Your task to perform on an android device: turn off smart reply in the gmail app Image 0: 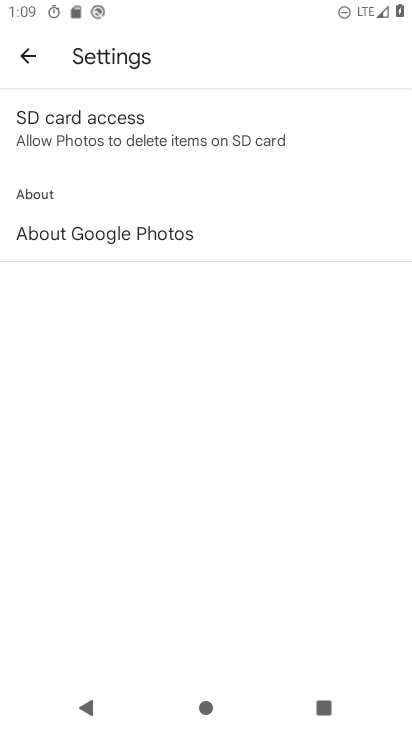
Step 0: press home button
Your task to perform on an android device: turn off smart reply in the gmail app Image 1: 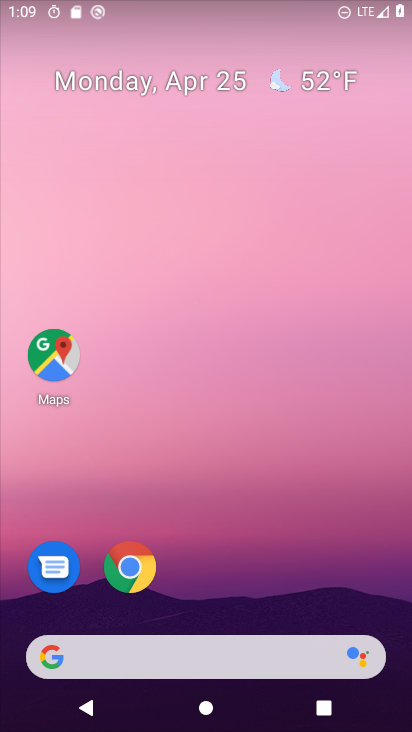
Step 1: drag from (237, 501) to (236, 31)
Your task to perform on an android device: turn off smart reply in the gmail app Image 2: 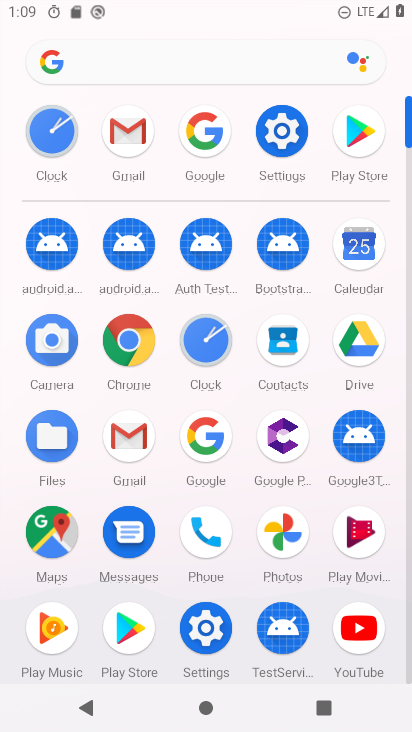
Step 2: click (134, 139)
Your task to perform on an android device: turn off smart reply in the gmail app Image 3: 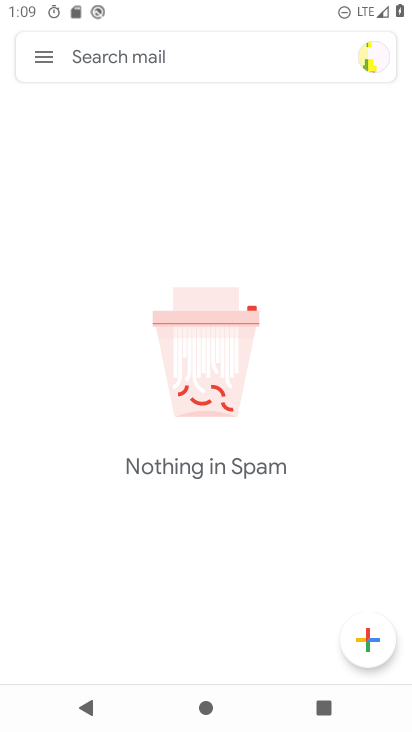
Step 3: click (47, 53)
Your task to perform on an android device: turn off smart reply in the gmail app Image 4: 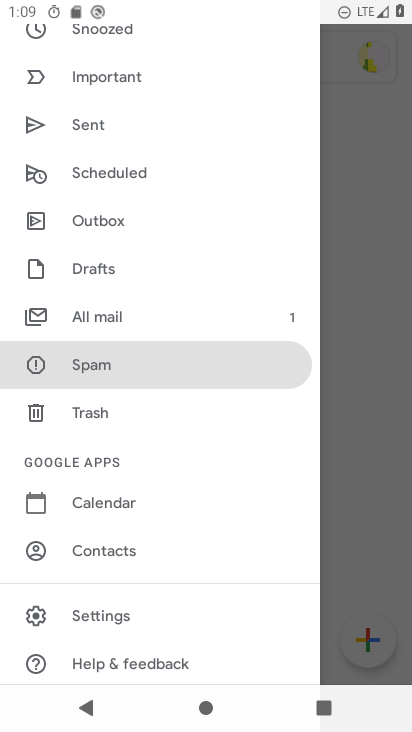
Step 4: click (118, 607)
Your task to perform on an android device: turn off smart reply in the gmail app Image 5: 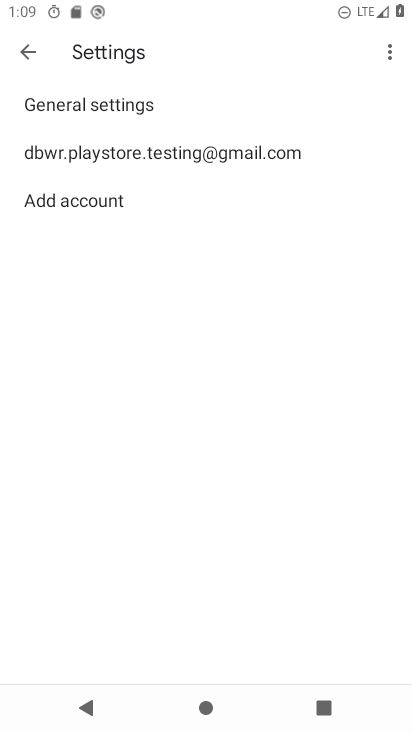
Step 5: click (256, 136)
Your task to perform on an android device: turn off smart reply in the gmail app Image 6: 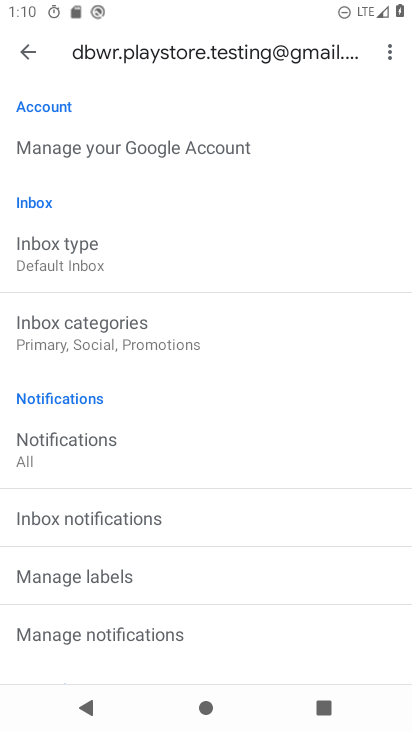
Step 6: drag from (256, 585) to (254, 119)
Your task to perform on an android device: turn off smart reply in the gmail app Image 7: 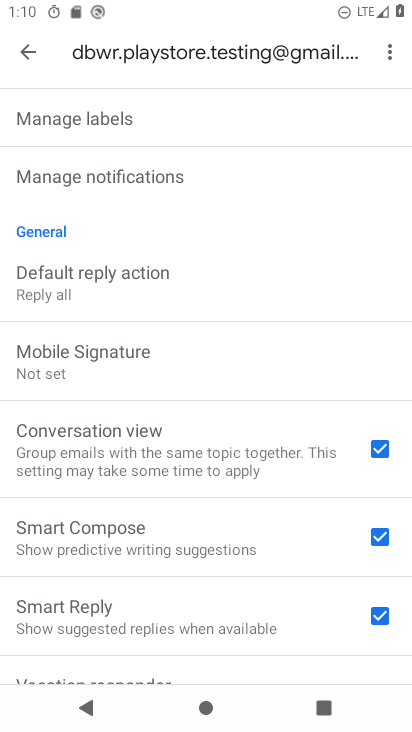
Step 7: drag from (226, 574) to (270, 287)
Your task to perform on an android device: turn off smart reply in the gmail app Image 8: 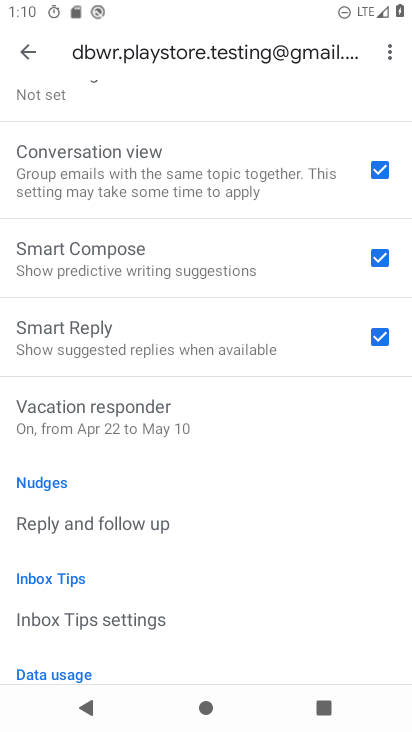
Step 8: click (174, 402)
Your task to perform on an android device: turn off smart reply in the gmail app Image 9: 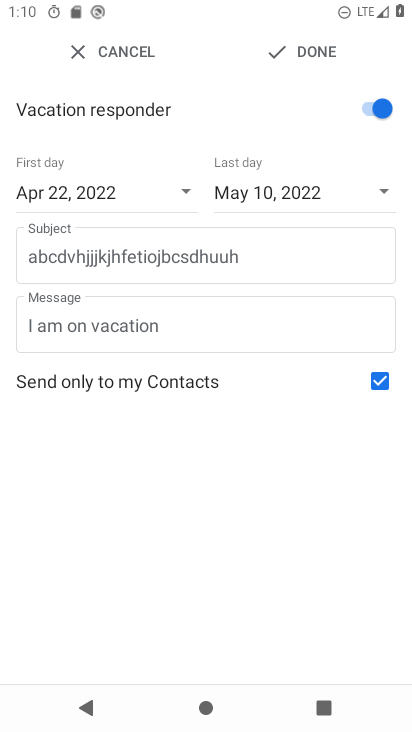
Step 9: click (370, 106)
Your task to perform on an android device: turn off smart reply in the gmail app Image 10: 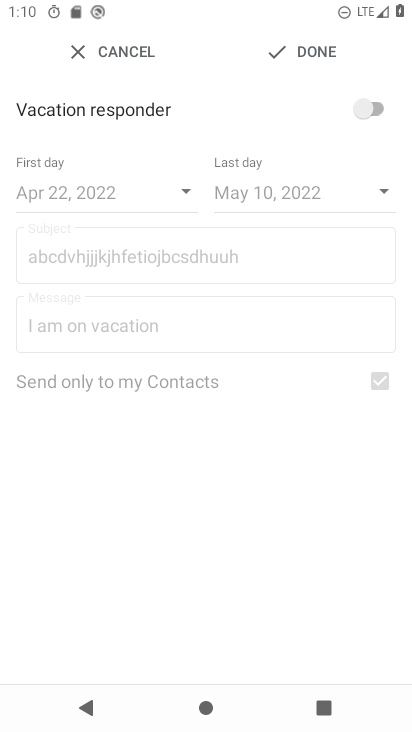
Step 10: task complete